Your task to perform on an android device: turn on priority inbox in the gmail app Image 0: 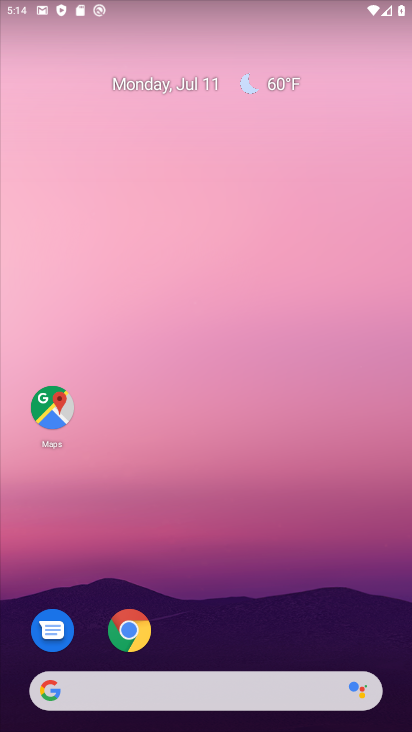
Step 0: click (184, 645)
Your task to perform on an android device: turn on priority inbox in the gmail app Image 1: 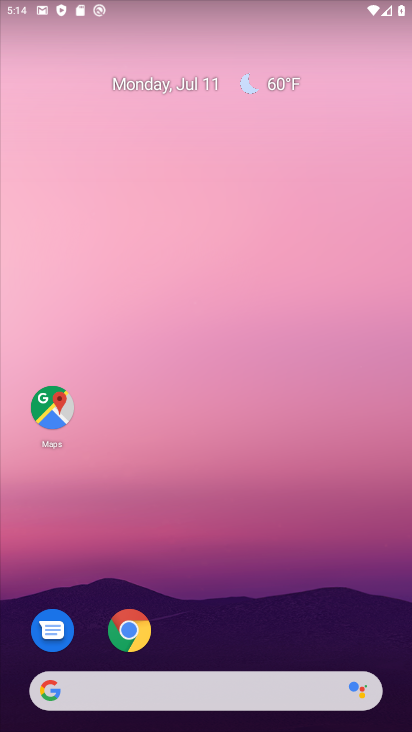
Step 1: drag from (198, 569) to (240, 185)
Your task to perform on an android device: turn on priority inbox in the gmail app Image 2: 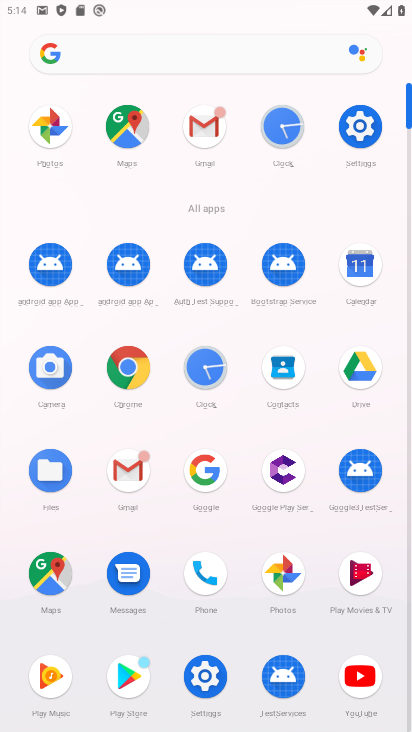
Step 2: click (205, 122)
Your task to perform on an android device: turn on priority inbox in the gmail app Image 3: 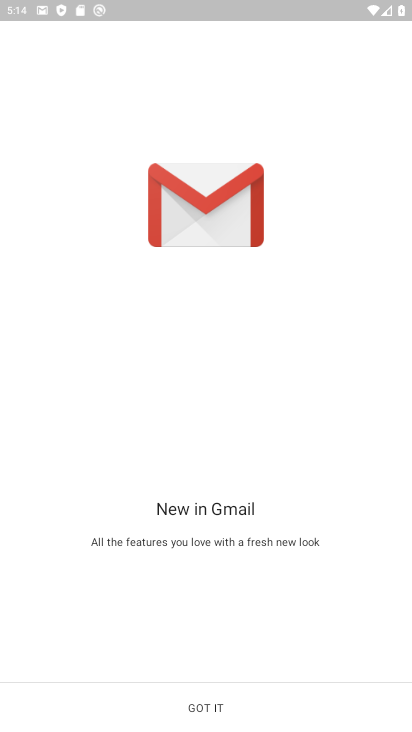
Step 3: click (210, 702)
Your task to perform on an android device: turn on priority inbox in the gmail app Image 4: 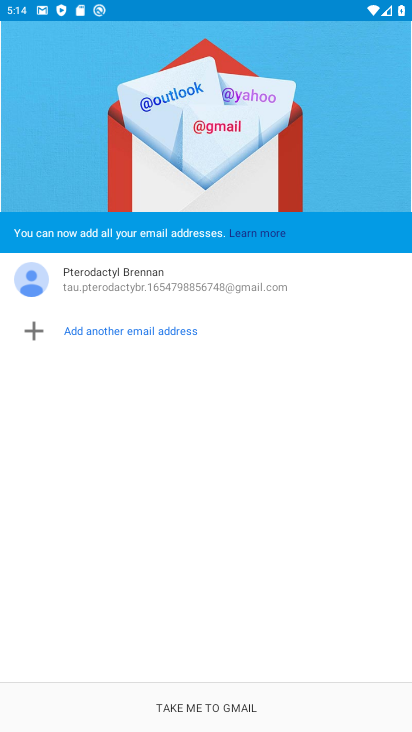
Step 4: click (210, 702)
Your task to perform on an android device: turn on priority inbox in the gmail app Image 5: 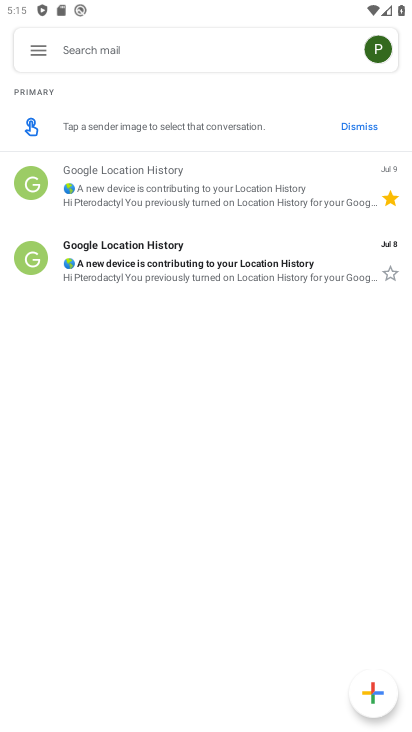
Step 5: click (33, 48)
Your task to perform on an android device: turn on priority inbox in the gmail app Image 6: 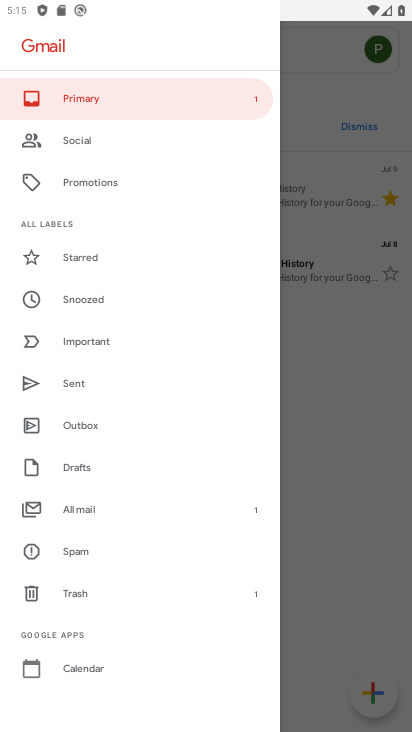
Step 6: drag from (91, 627) to (142, 246)
Your task to perform on an android device: turn on priority inbox in the gmail app Image 7: 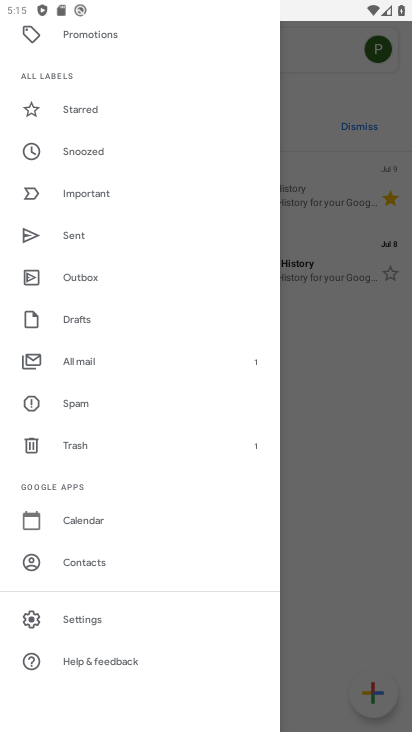
Step 7: click (83, 617)
Your task to perform on an android device: turn on priority inbox in the gmail app Image 8: 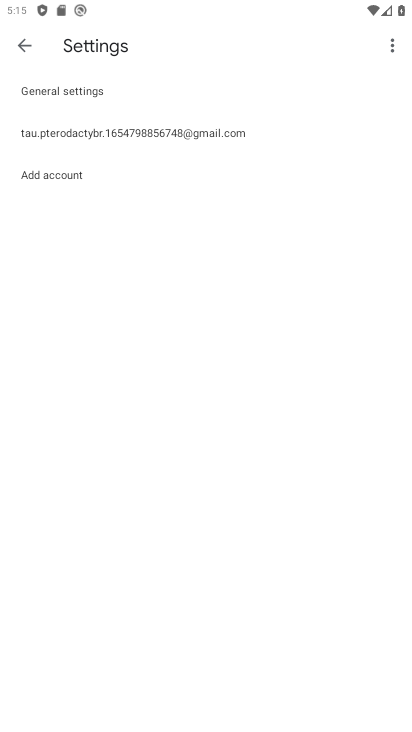
Step 8: click (83, 617)
Your task to perform on an android device: turn on priority inbox in the gmail app Image 9: 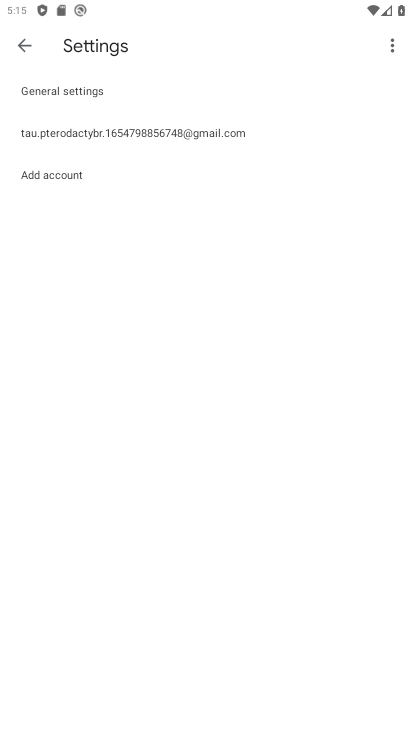
Step 9: click (102, 139)
Your task to perform on an android device: turn on priority inbox in the gmail app Image 10: 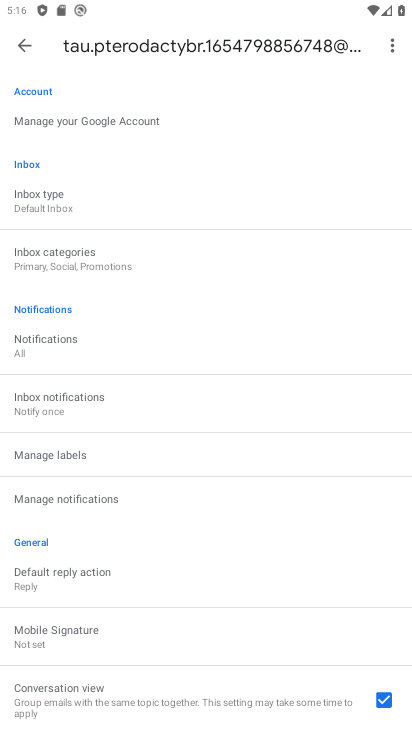
Step 10: click (36, 205)
Your task to perform on an android device: turn on priority inbox in the gmail app Image 11: 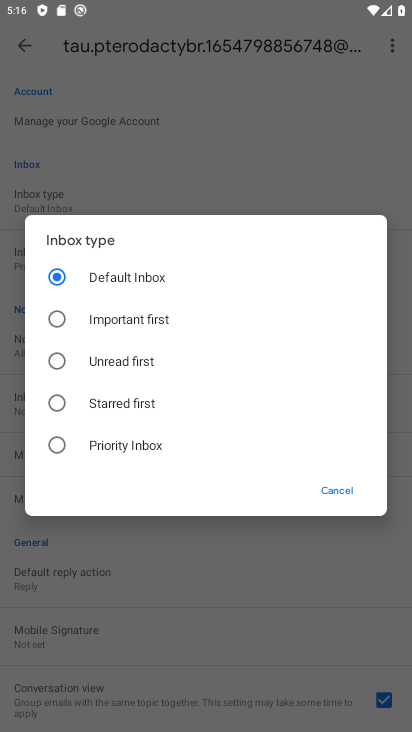
Step 11: click (57, 443)
Your task to perform on an android device: turn on priority inbox in the gmail app Image 12: 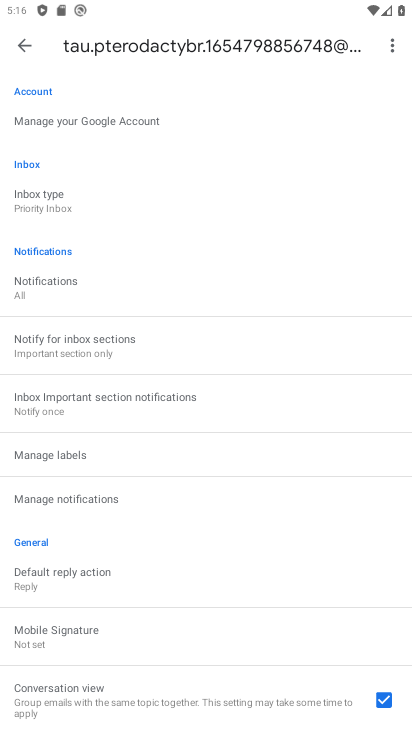
Step 12: task complete